Your task to perform on an android device: clear history in the chrome app Image 0: 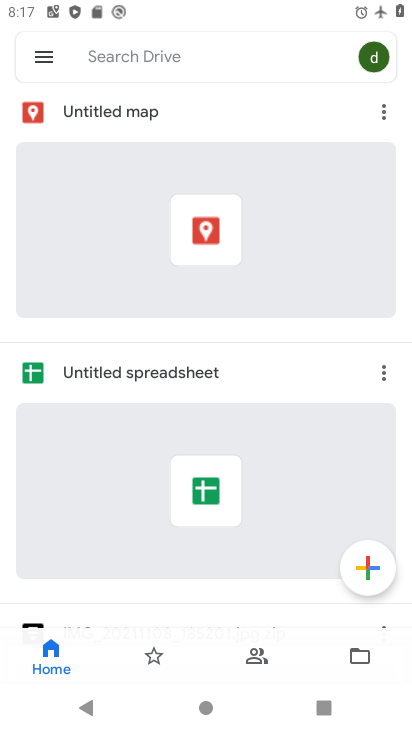
Step 0: press home button
Your task to perform on an android device: clear history in the chrome app Image 1: 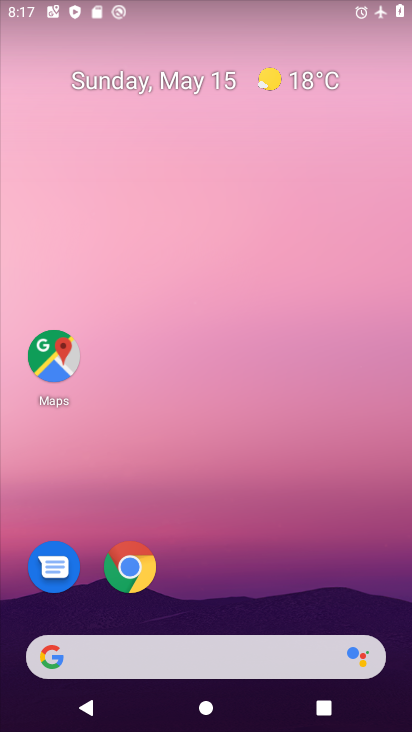
Step 1: click (142, 560)
Your task to perform on an android device: clear history in the chrome app Image 2: 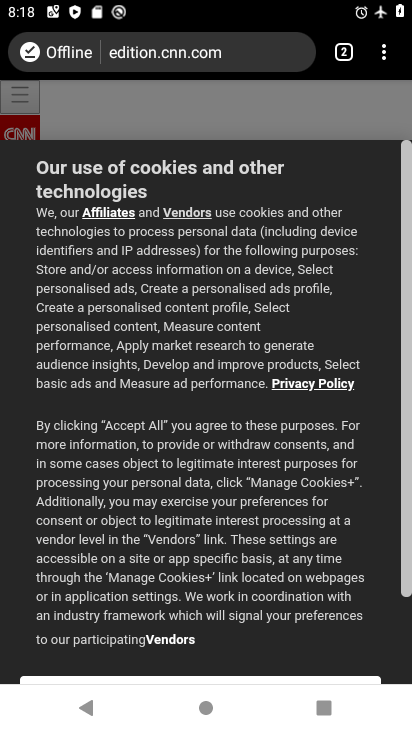
Step 2: click (380, 49)
Your task to perform on an android device: clear history in the chrome app Image 3: 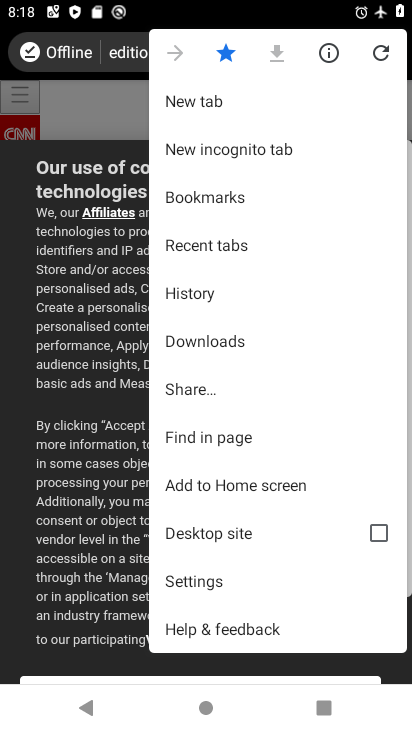
Step 3: click (200, 297)
Your task to perform on an android device: clear history in the chrome app Image 4: 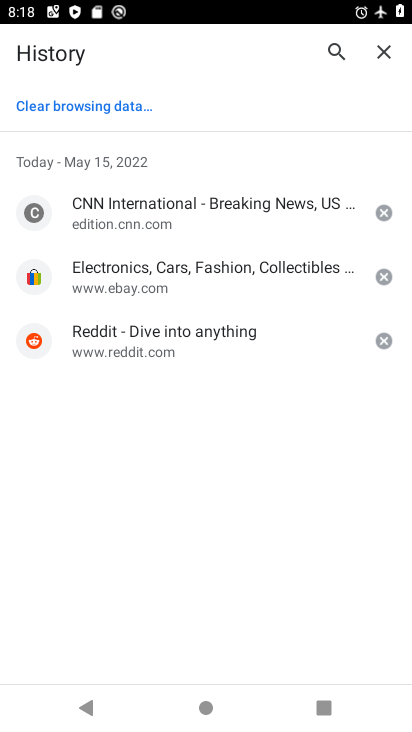
Step 4: click (99, 110)
Your task to perform on an android device: clear history in the chrome app Image 5: 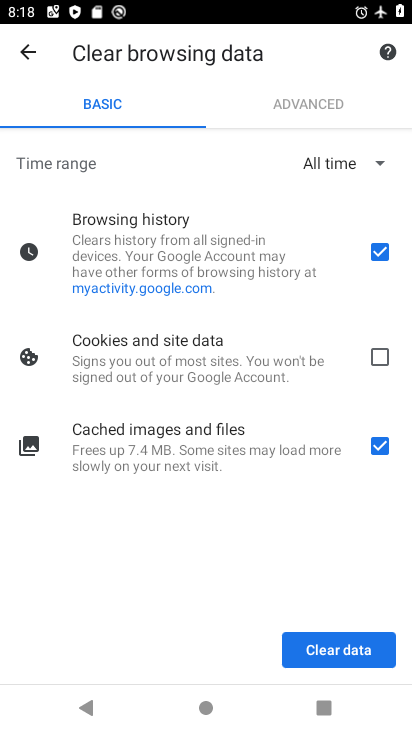
Step 5: click (335, 659)
Your task to perform on an android device: clear history in the chrome app Image 6: 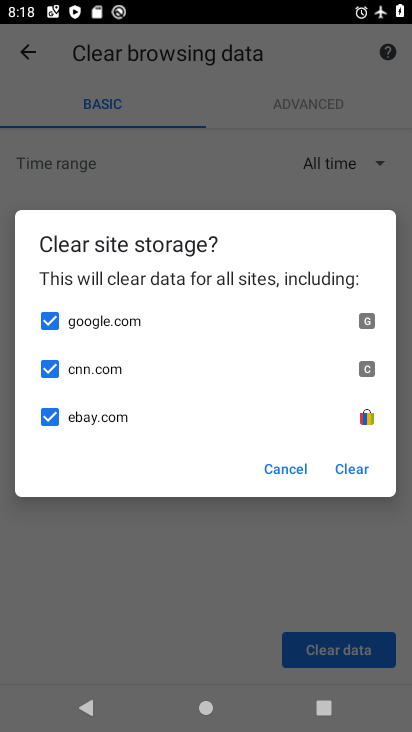
Step 6: click (357, 467)
Your task to perform on an android device: clear history in the chrome app Image 7: 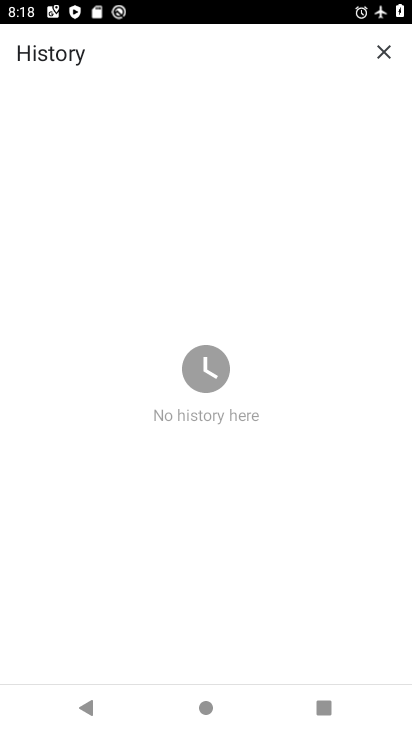
Step 7: task complete